Your task to perform on an android device: What is the recent news? Image 0: 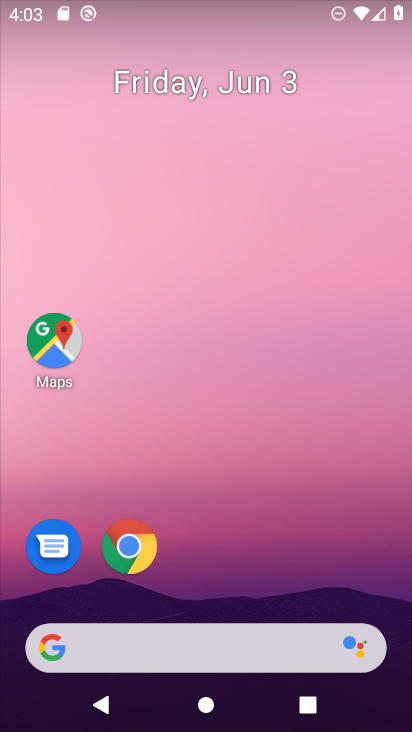
Step 0: click (177, 651)
Your task to perform on an android device: What is the recent news? Image 1: 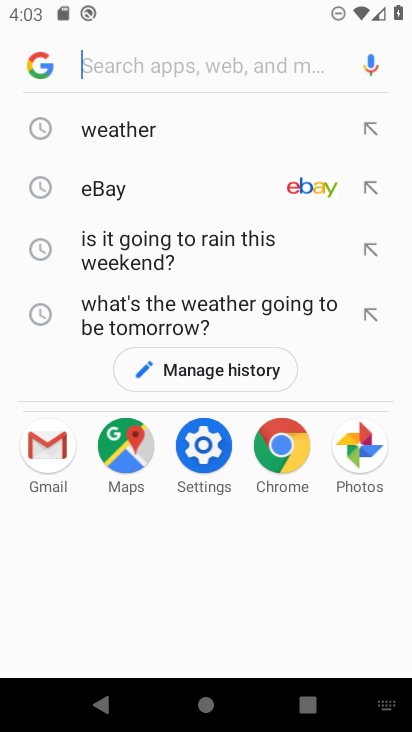
Step 1: type "news"
Your task to perform on an android device: What is the recent news? Image 2: 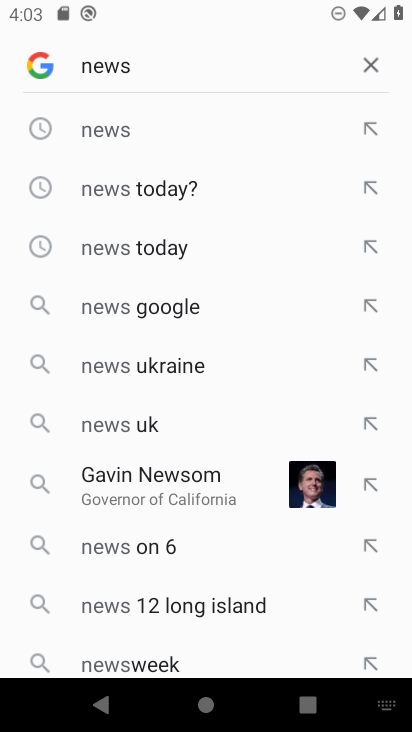
Step 2: click (114, 126)
Your task to perform on an android device: What is the recent news? Image 3: 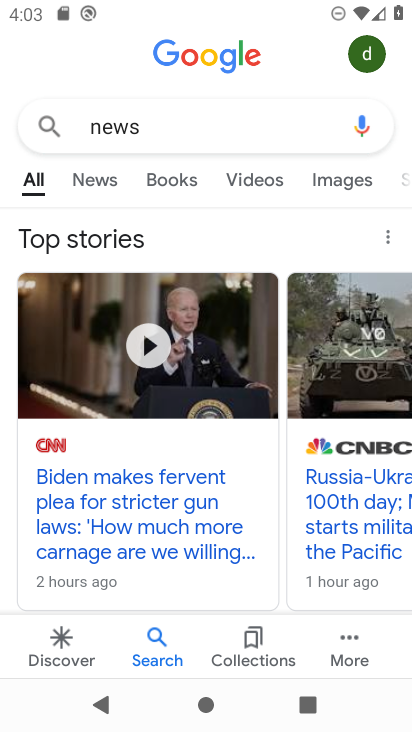
Step 3: click (107, 186)
Your task to perform on an android device: What is the recent news? Image 4: 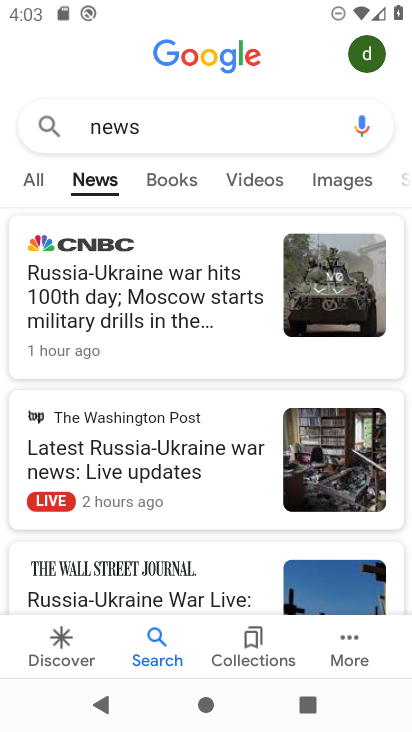
Step 4: click (185, 299)
Your task to perform on an android device: What is the recent news? Image 5: 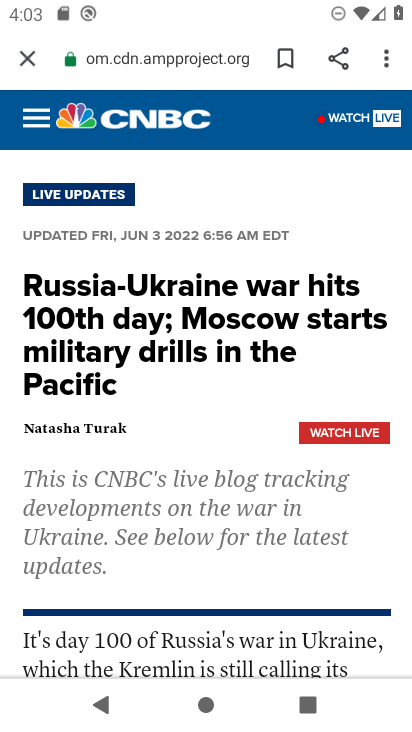
Step 5: task complete